Your task to perform on an android device: open a bookmark in the chrome app Image 0: 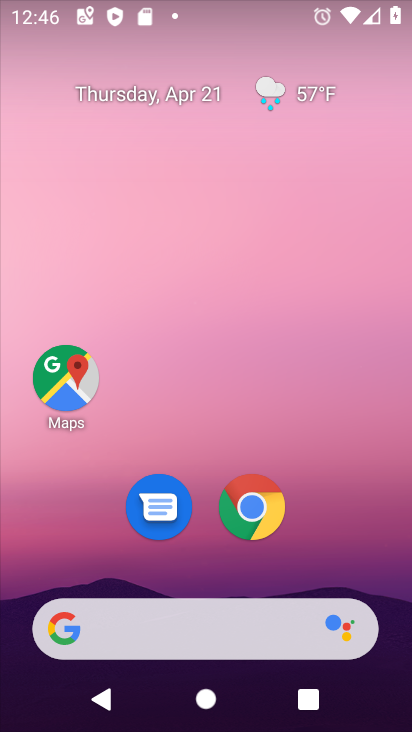
Step 0: click (254, 506)
Your task to perform on an android device: open a bookmark in the chrome app Image 1: 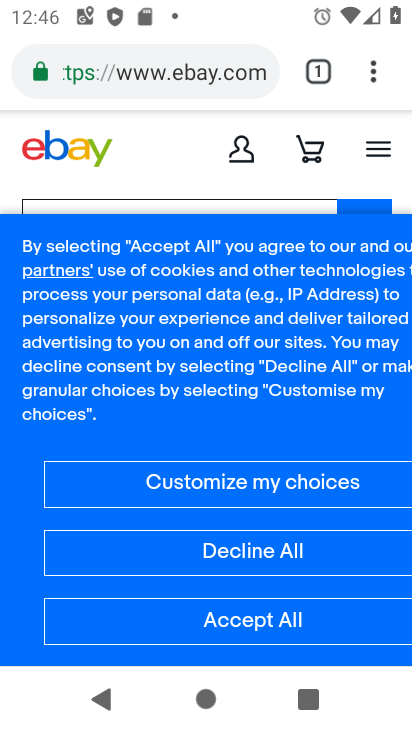
Step 1: click (373, 69)
Your task to perform on an android device: open a bookmark in the chrome app Image 2: 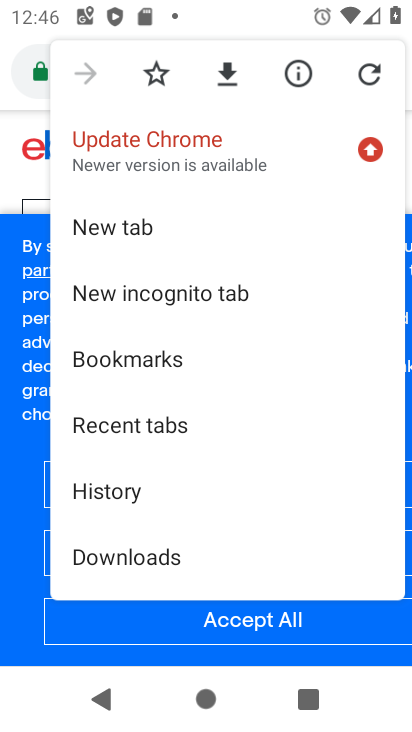
Step 2: drag from (154, 501) to (206, 406)
Your task to perform on an android device: open a bookmark in the chrome app Image 3: 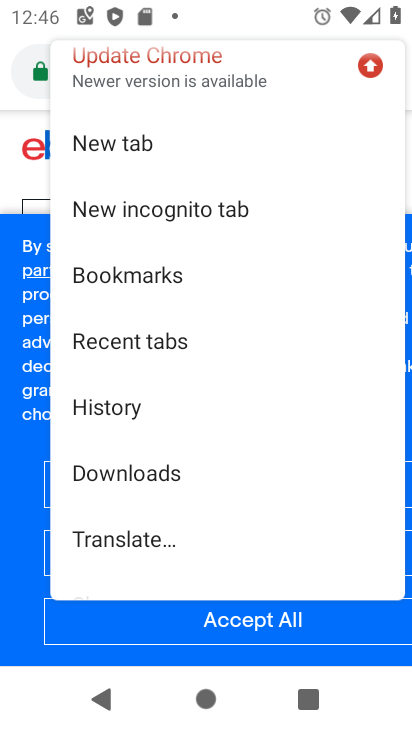
Step 3: drag from (192, 513) to (218, 426)
Your task to perform on an android device: open a bookmark in the chrome app Image 4: 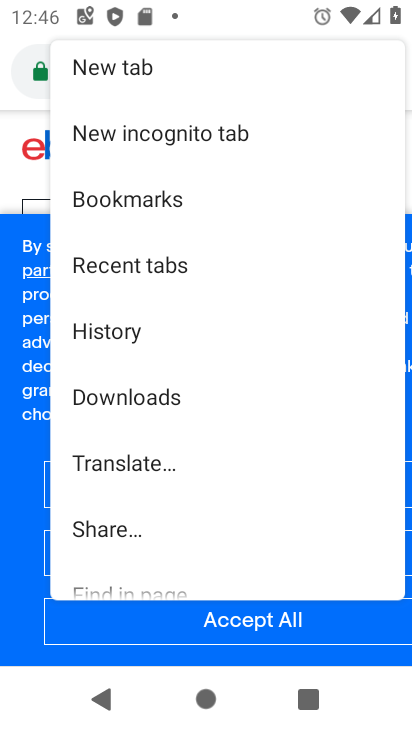
Step 4: drag from (176, 491) to (218, 387)
Your task to perform on an android device: open a bookmark in the chrome app Image 5: 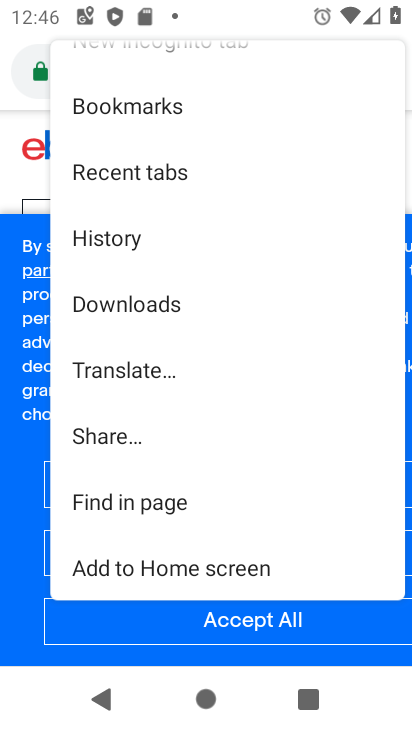
Step 5: drag from (207, 452) to (246, 378)
Your task to perform on an android device: open a bookmark in the chrome app Image 6: 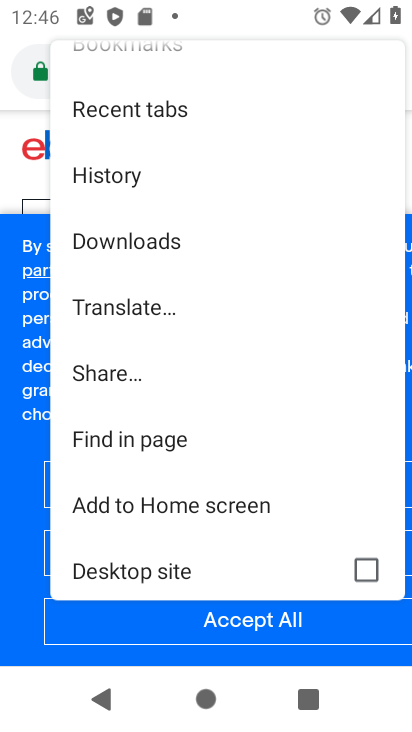
Step 6: drag from (205, 212) to (204, 423)
Your task to perform on an android device: open a bookmark in the chrome app Image 7: 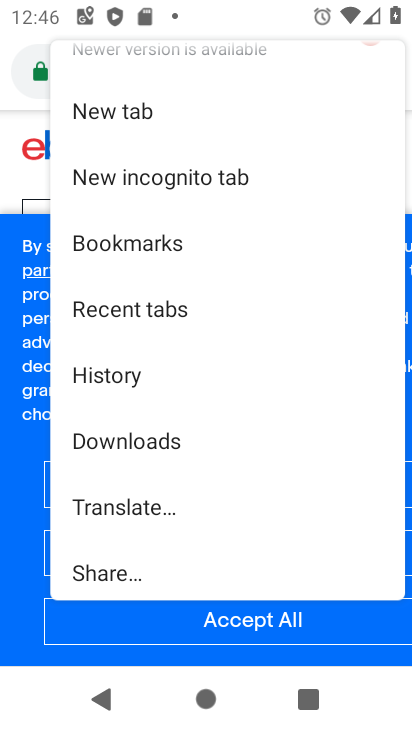
Step 7: click (167, 244)
Your task to perform on an android device: open a bookmark in the chrome app Image 8: 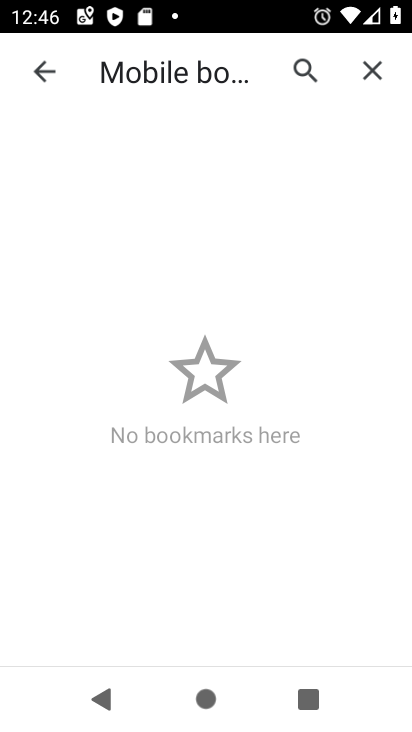
Step 8: task complete